Your task to perform on an android device: Open settings Image 0: 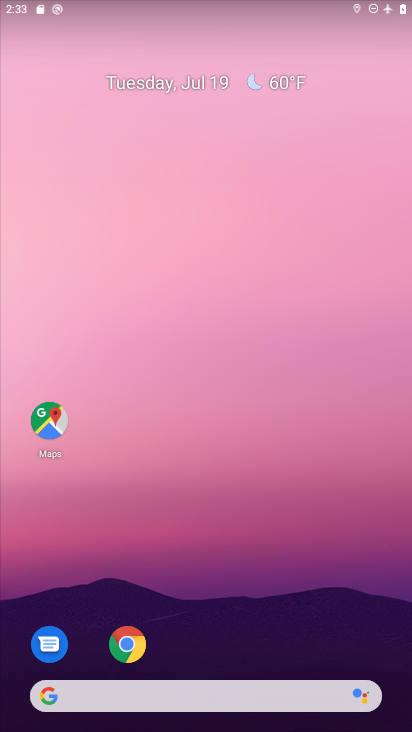
Step 0: drag from (230, 659) to (231, 142)
Your task to perform on an android device: Open settings Image 1: 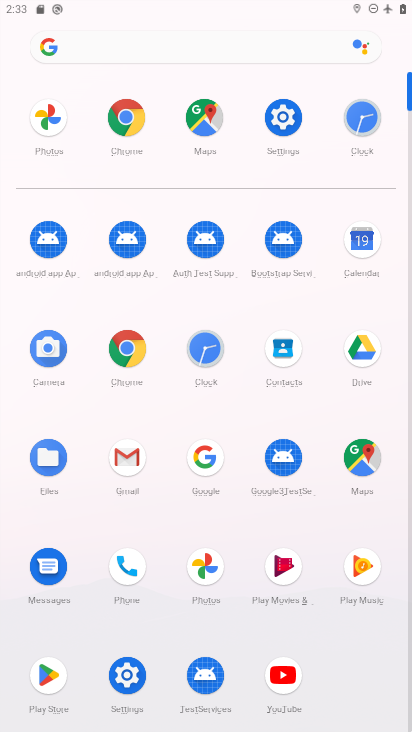
Step 1: click (277, 106)
Your task to perform on an android device: Open settings Image 2: 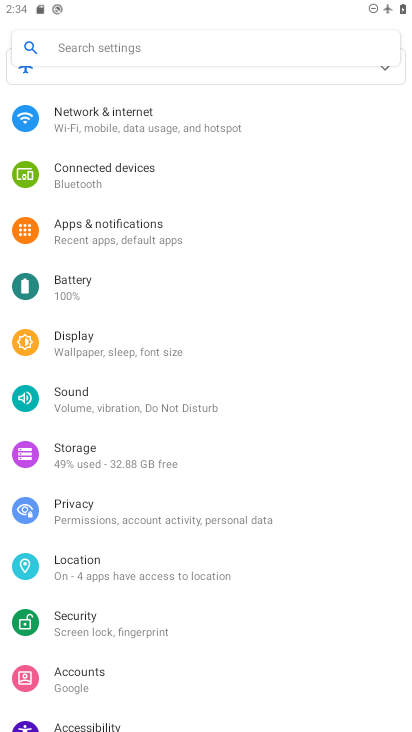
Step 2: task complete